Your task to perform on an android device: snooze an email in the gmail app Image 0: 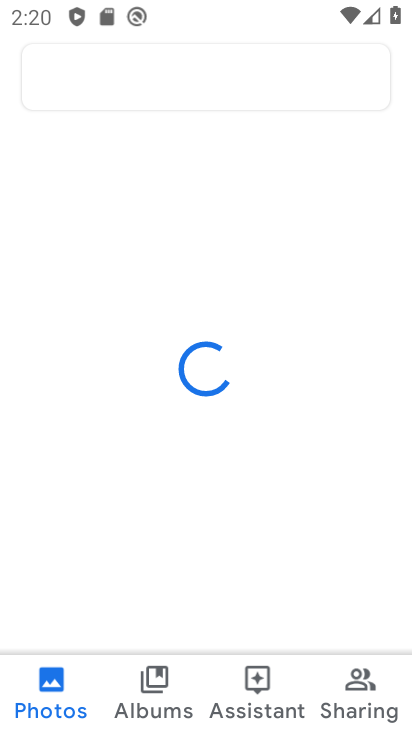
Step 0: press home button
Your task to perform on an android device: snooze an email in the gmail app Image 1: 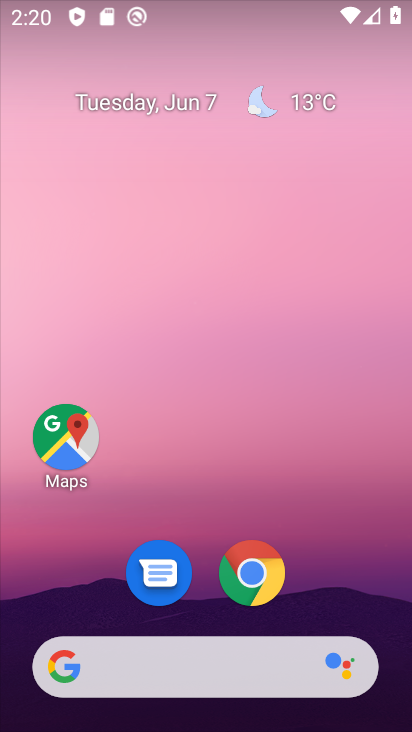
Step 1: drag from (336, 612) to (337, 44)
Your task to perform on an android device: snooze an email in the gmail app Image 2: 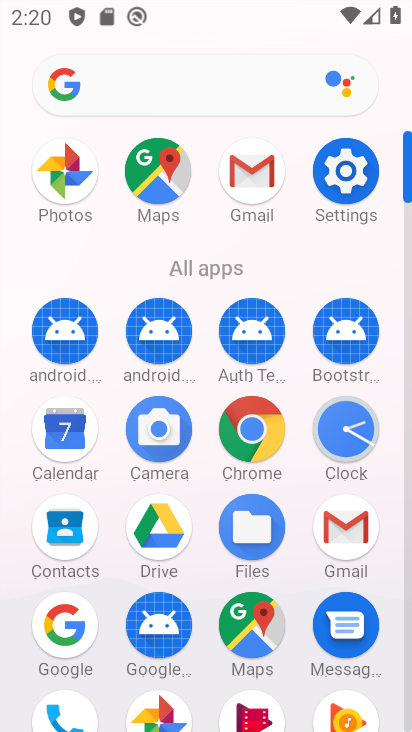
Step 2: click (352, 532)
Your task to perform on an android device: snooze an email in the gmail app Image 3: 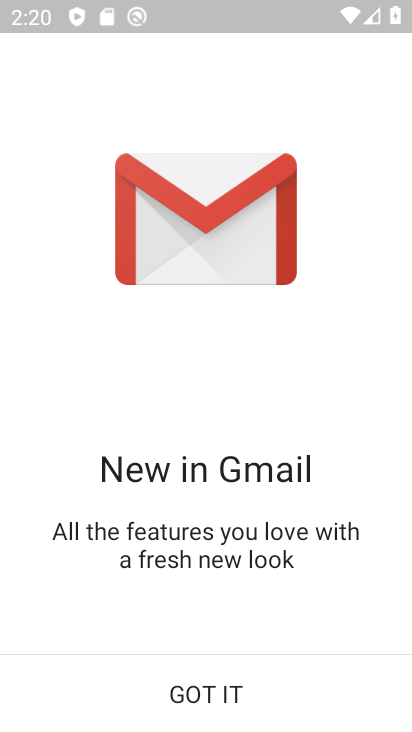
Step 3: click (306, 683)
Your task to perform on an android device: snooze an email in the gmail app Image 4: 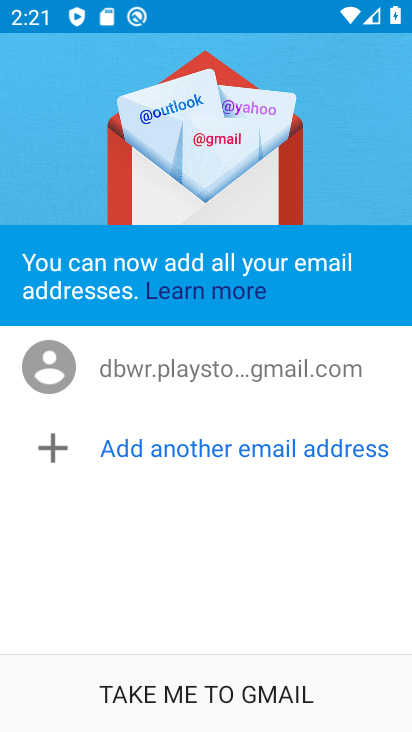
Step 4: click (239, 680)
Your task to perform on an android device: snooze an email in the gmail app Image 5: 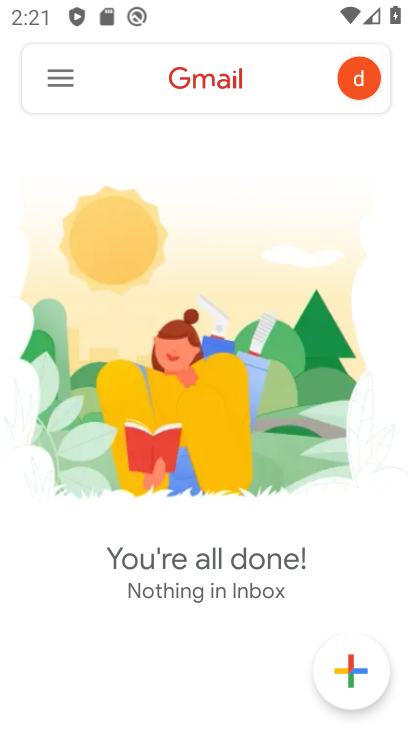
Step 5: click (57, 83)
Your task to perform on an android device: snooze an email in the gmail app Image 6: 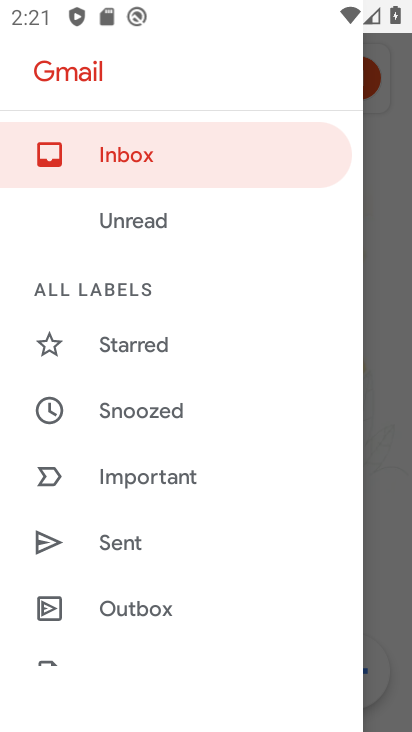
Step 6: drag from (146, 606) to (122, 113)
Your task to perform on an android device: snooze an email in the gmail app Image 7: 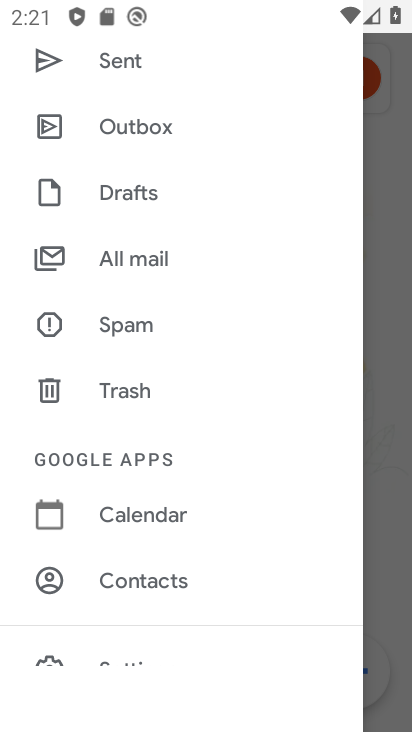
Step 7: drag from (165, 193) to (252, 583)
Your task to perform on an android device: snooze an email in the gmail app Image 8: 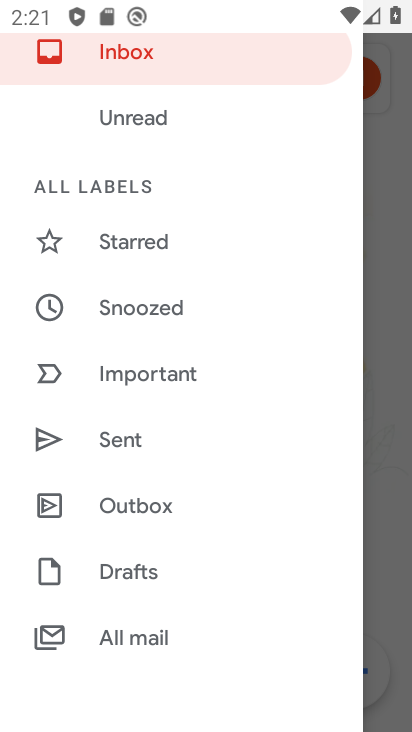
Step 8: click (161, 638)
Your task to perform on an android device: snooze an email in the gmail app Image 9: 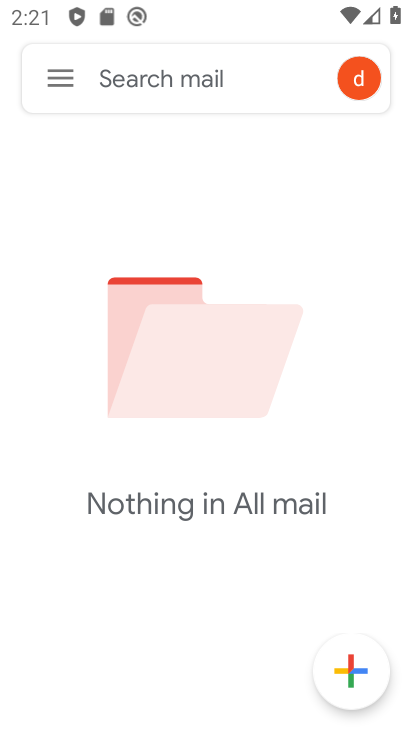
Step 9: task complete